Your task to perform on an android device: Search for seafood restaurants on Google Maps Image 0: 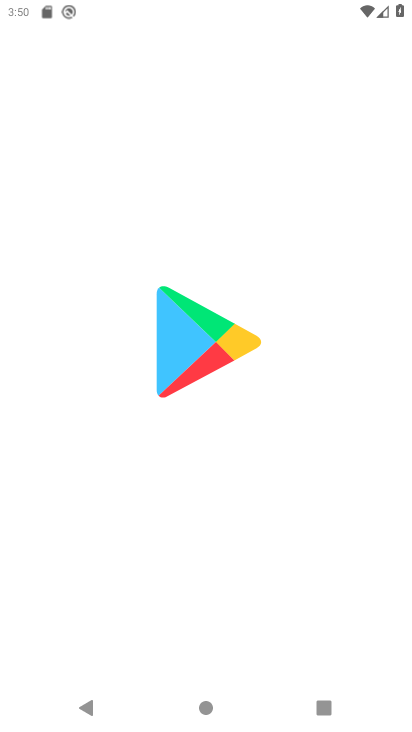
Step 0: click (256, 458)
Your task to perform on an android device: Search for seafood restaurants on Google Maps Image 1: 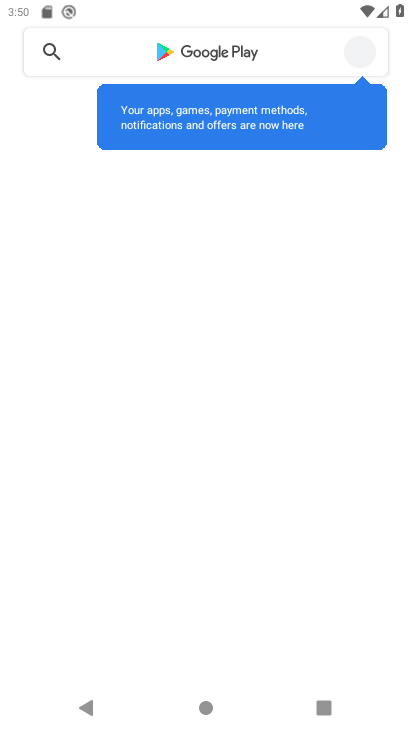
Step 1: press home button
Your task to perform on an android device: Search for seafood restaurants on Google Maps Image 2: 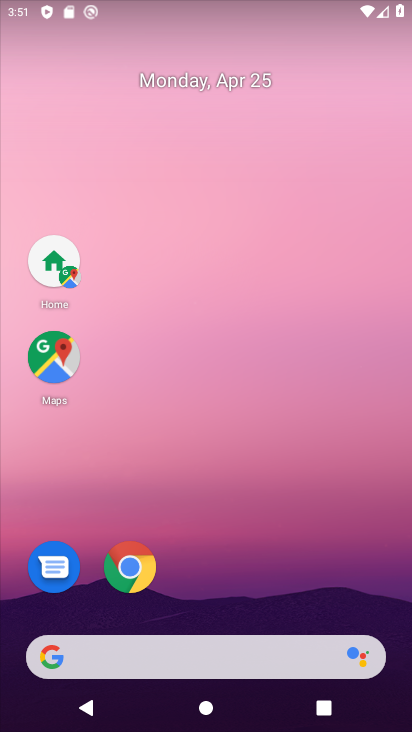
Step 2: click (68, 363)
Your task to perform on an android device: Search for seafood restaurants on Google Maps Image 3: 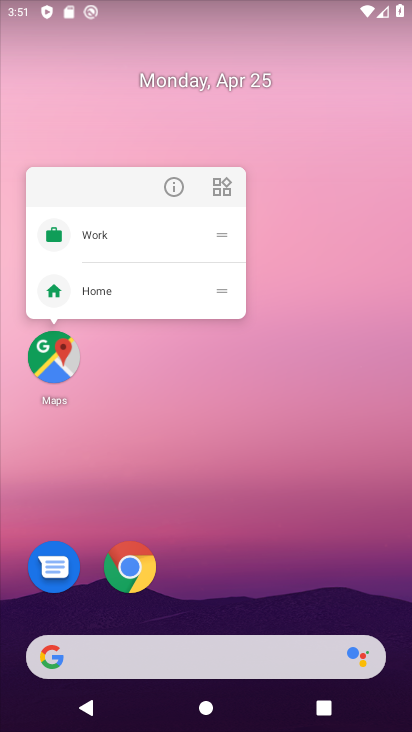
Step 3: click (68, 365)
Your task to perform on an android device: Search for seafood restaurants on Google Maps Image 4: 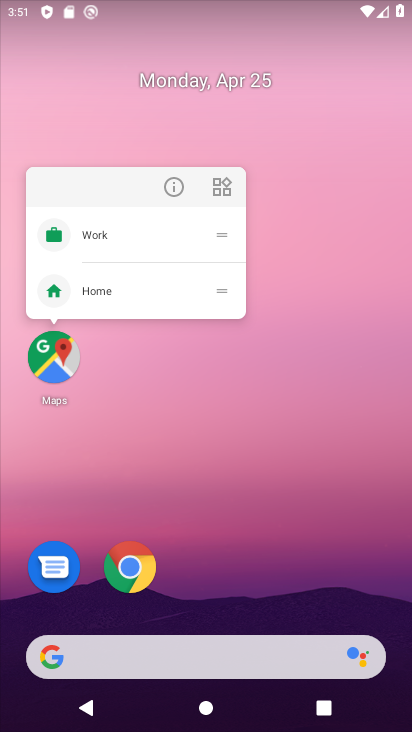
Step 4: click (56, 355)
Your task to perform on an android device: Search for seafood restaurants on Google Maps Image 5: 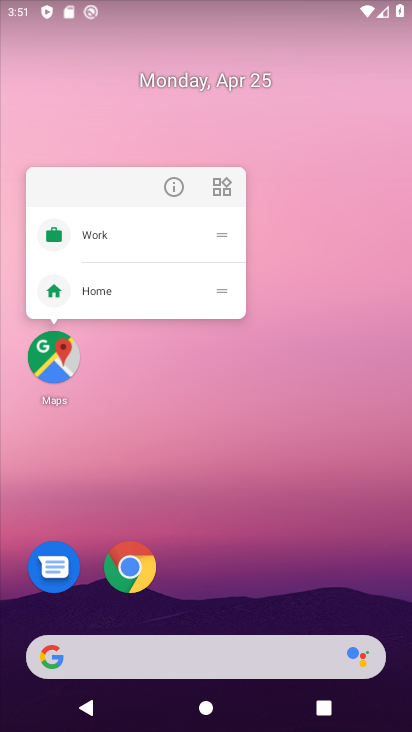
Step 5: click (54, 353)
Your task to perform on an android device: Search for seafood restaurants on Google Maps Image 6: 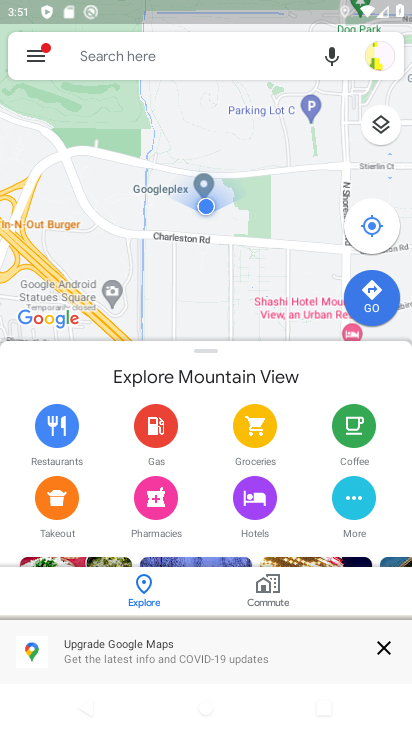
Step 6: click (161, 43)
Your task to perform on an android device: Search for seafood restaurants on Google Maps Image 7: 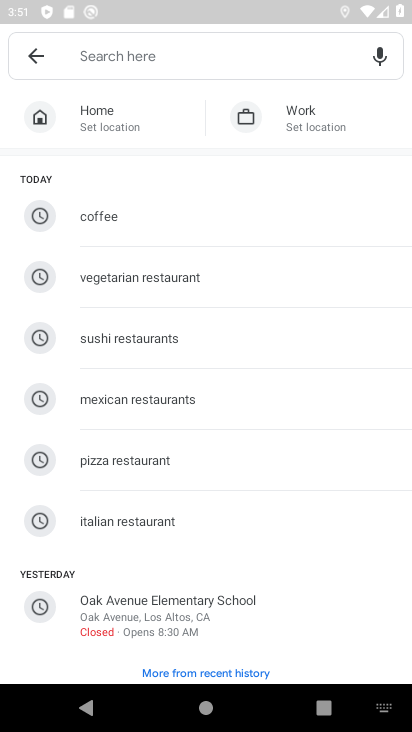
Step 7: type " seafood restaurants "
Your task to perform on an android device: Search for seafood restaurants on Google Maps Image 8: 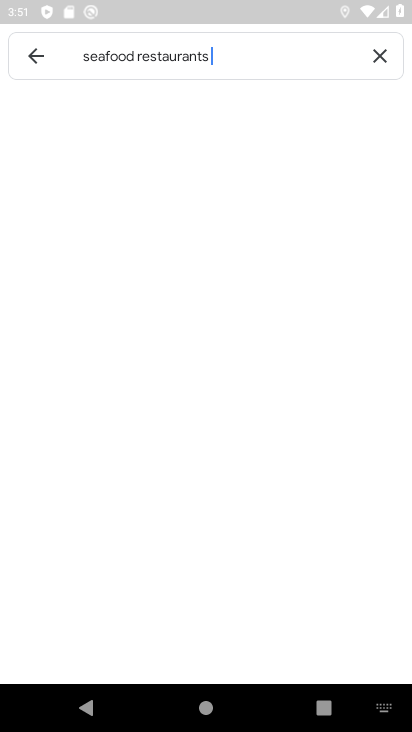
Step 8: type ""
Your task to perform on an android device: Search for seafood restaurants on Google Maps Image 9: 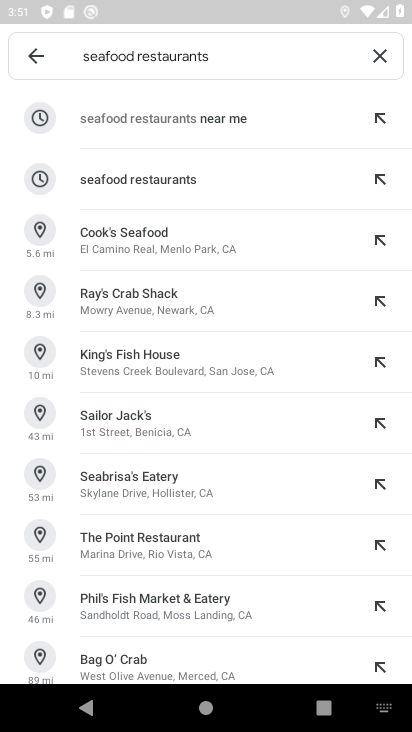
Step 9: click (149, 164)
Your task to perform on an android device: Search for seafood restaurants on Google Maps Image 10: 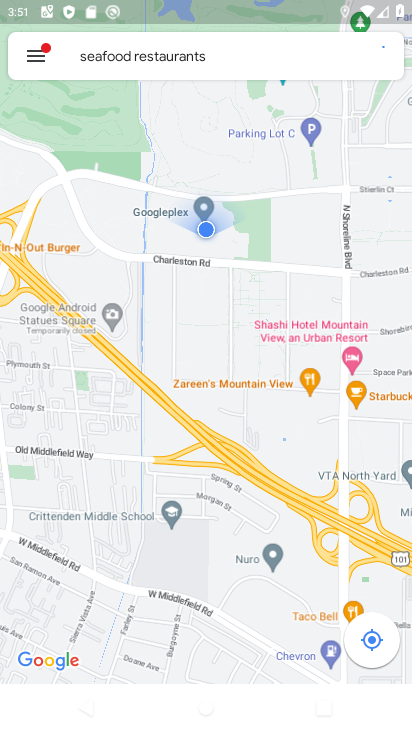
Step 10: task complete